Your task to perform on an android device: turn off translation in the chrome app Image 0: 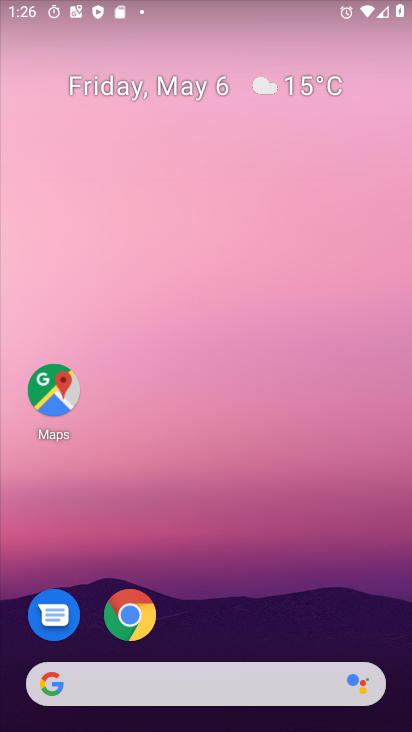
Step 0: drag from (276, 524) to (253, 45)
Your task to perform on an android device: turn off translation in the chrome app Image 1: 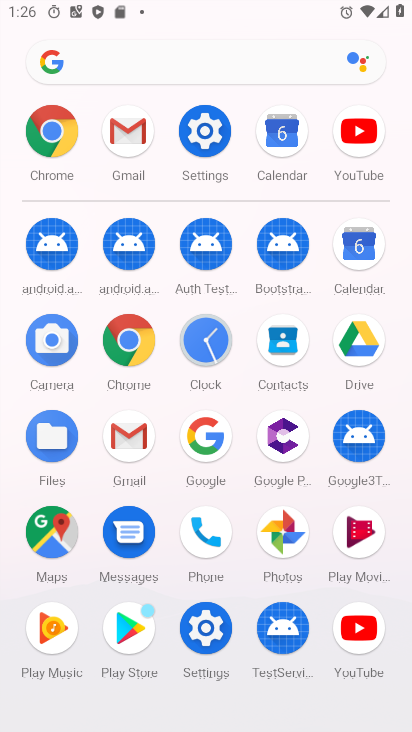
Step 1: click (128, 343)
Your task to perform on an android device: turn off translation in the chrome app Image 2: 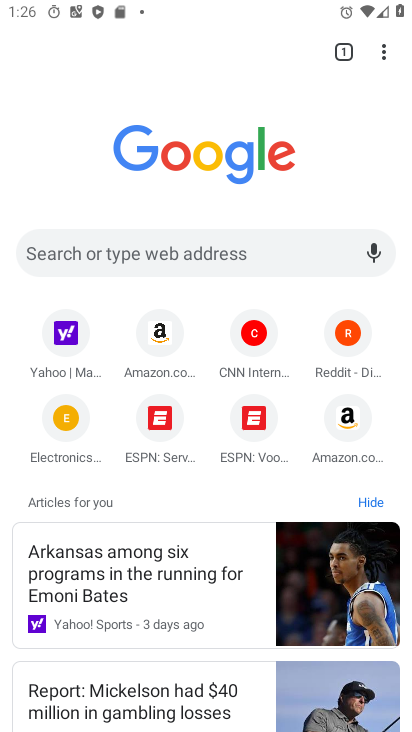
Step 2: drag from (377, 51) to (255, 433)
Your task to perform on an android device: turn off translation in the chrome app Image 3: 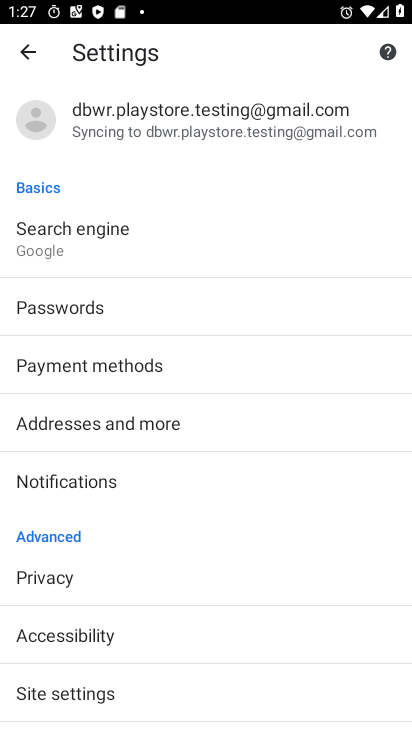
Step 3: drag from (185, 619) to (246, 397)
Your task to perform on an android device: turn off translation in the chrome app Image 4: 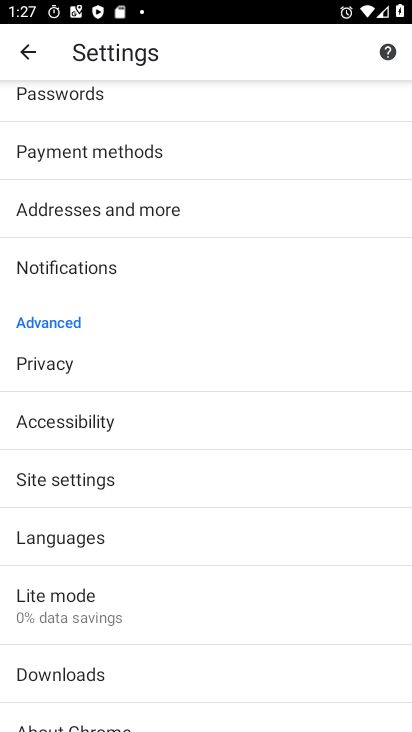
Step 4: click (173, 528)
Your task to perform on an android device: turn off translation in the chrome app Image 5: 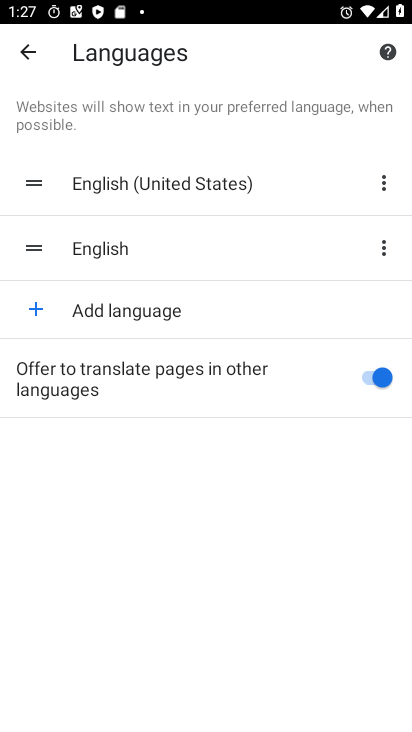
Step 5: click (359, 372)
Your task to perform on an android device: turn off translation in the chrome app Image 6: 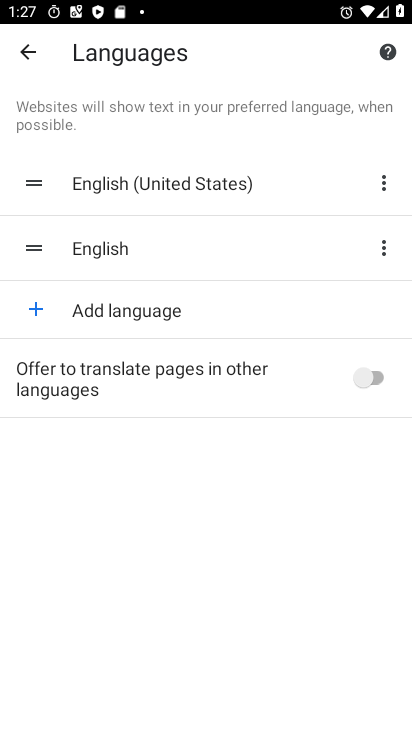
Step 6: task complete